Your task to perform on an android device: delete location history Image 0: 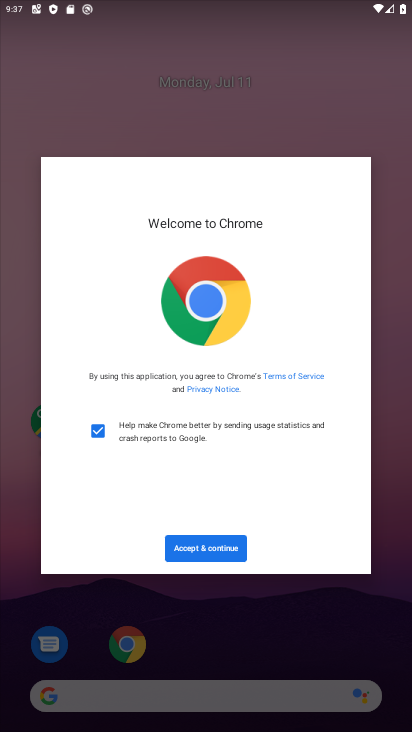
Step 0: press home button
Your task to perform on an android device: delete location history Image 1: 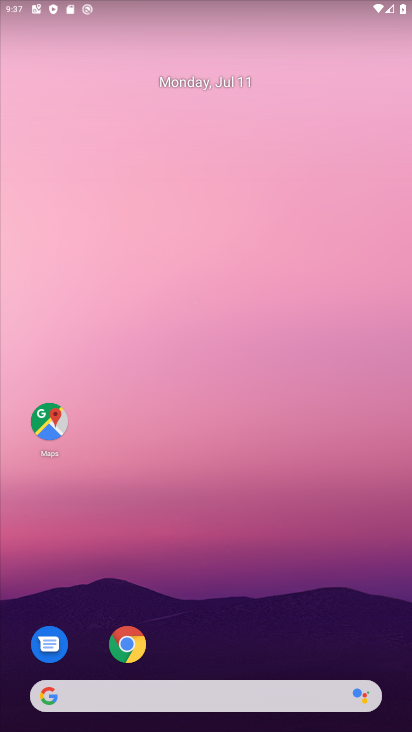
Step 1: drag from (238, 657) to (242, 148)
Your task to perform on an android device: delete location history Image 2: 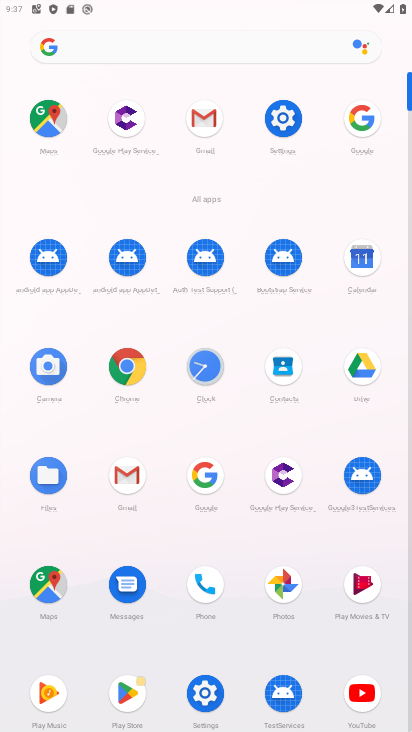
Step 2: click (280, 115)
Your task to perform on an android device: delete location history Image 3: 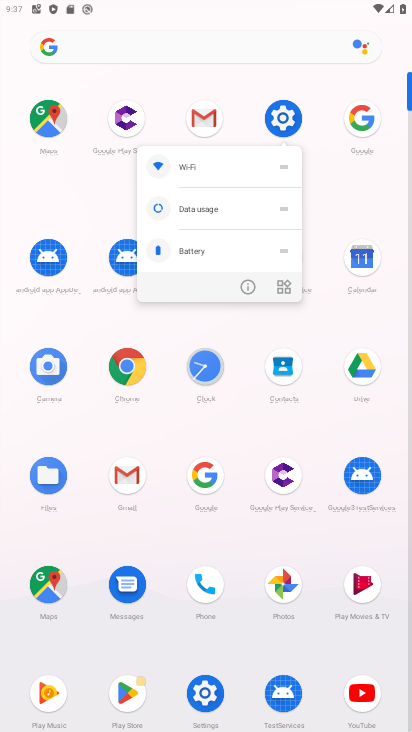
Step 3: click (280, 116)
Your task to perform on an android device: delete location history Image 4: 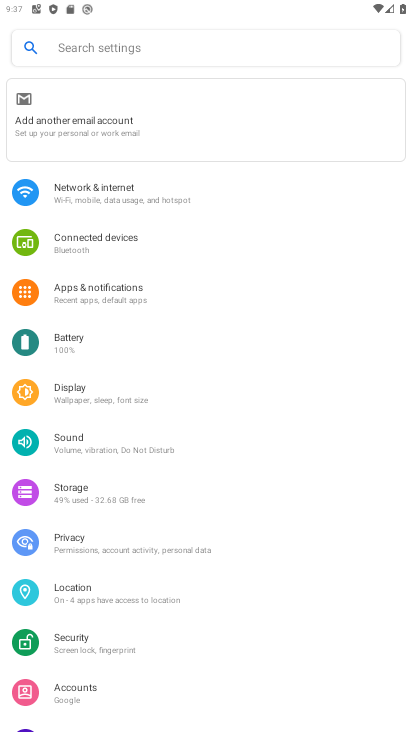
Step 4: drag from (120, 655) to (120, 412)
Your task to perform on an android device: delete location history Image 5: 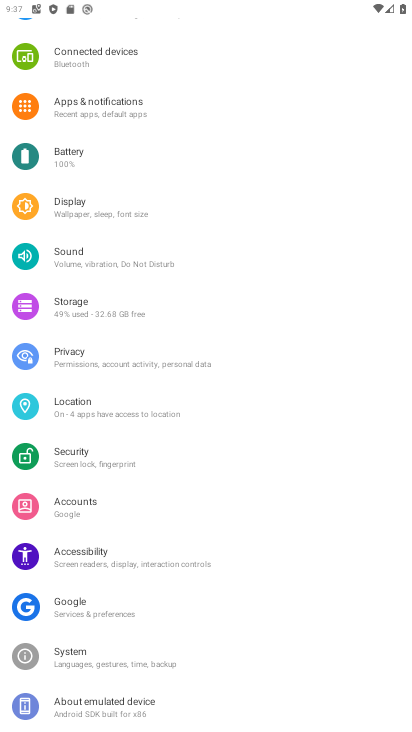
Step 5: click (94, 403)
Your task to perform on an android device: delete location history Image 6: 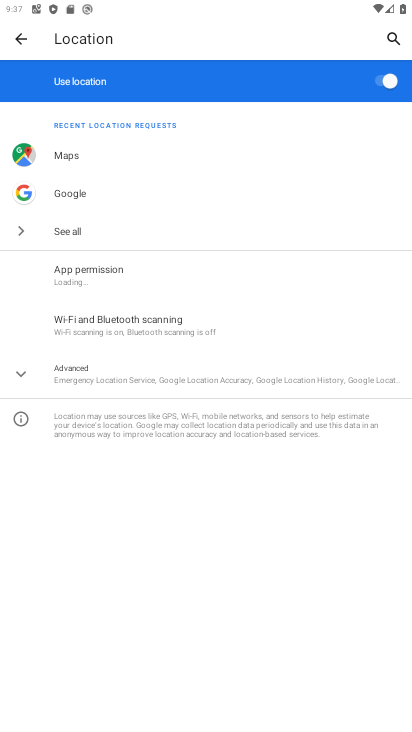
Step 6: click (100, 376)
Your task to perform on an android device: delete location history Image 7: 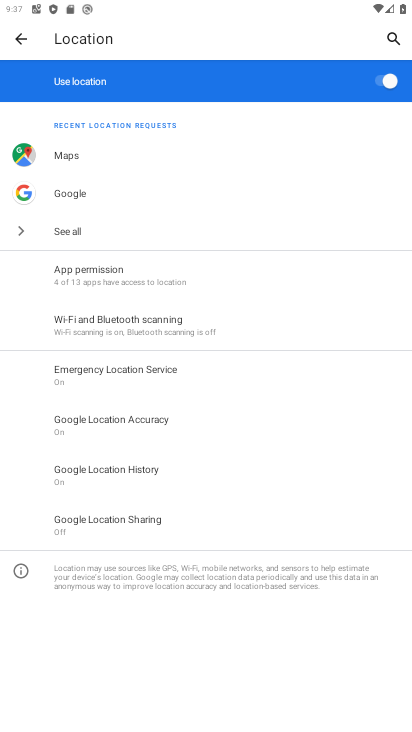
Step 7: click (106, 474)
Your task to perform on an android device: delete location history Image 8: 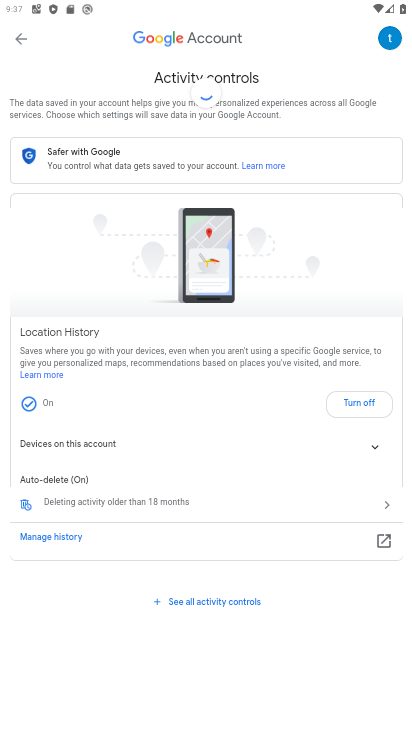
Step 8: click (25, 506)
Your task to perform on an android device: delete location history Image 9: 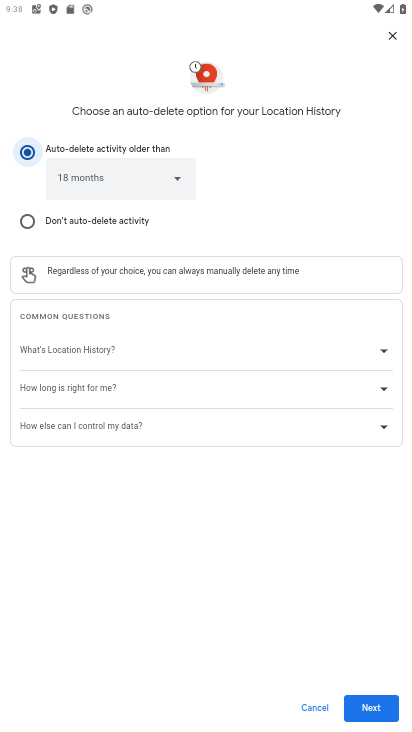
Step 9: click (372, 712)
Your task to perform on an android device: delete location history Image 10: 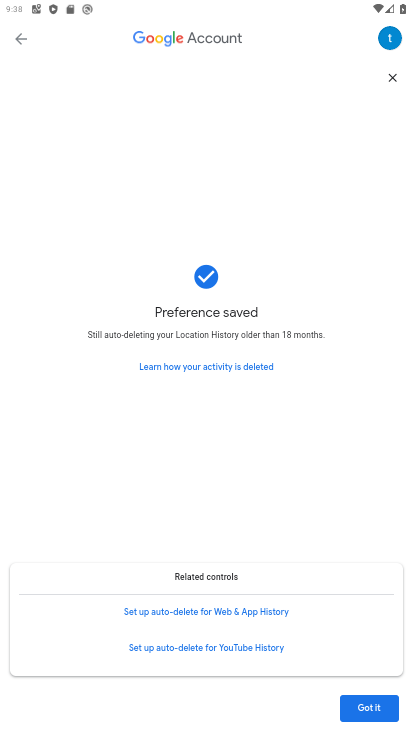
Step 10: click (372, 713)
Your task to perform on an android device: delete location history Image 11: 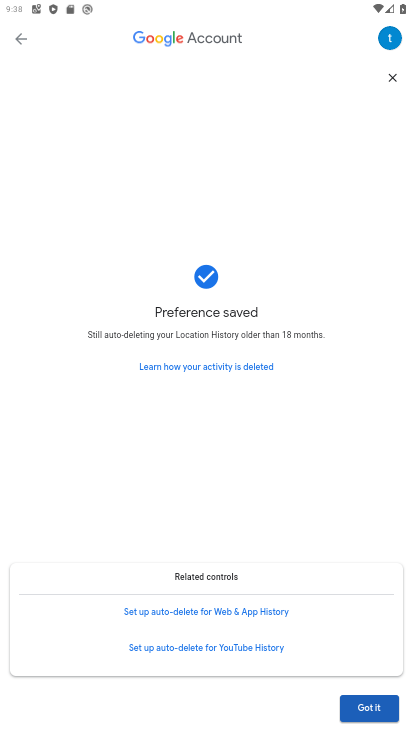
Step 11: click (372, 712)
Your task to perform on an android device: delete location history Image 12: 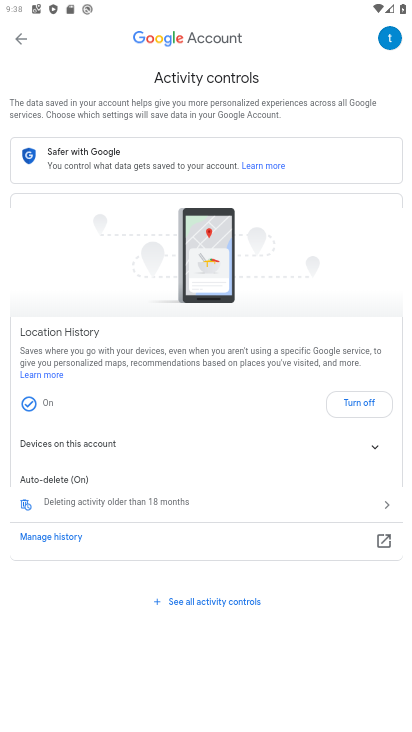
Step 12: task complete